Your task to perform on an android device: turn pop-ups on in chrome Image 0: 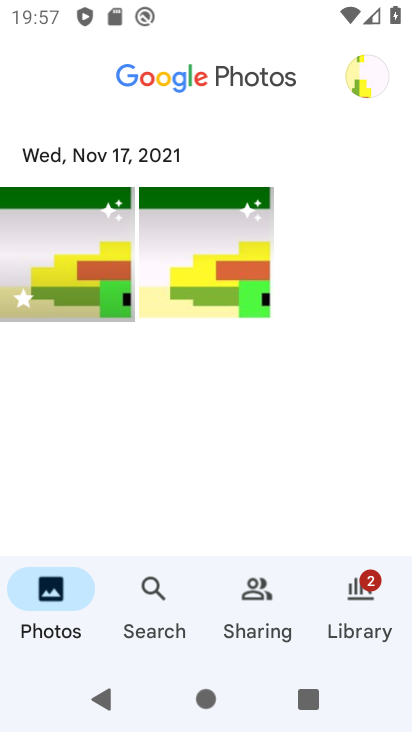
Step 0: press home button
Your task to perform on an android device: turn pop-ups on in chrome Image 1: 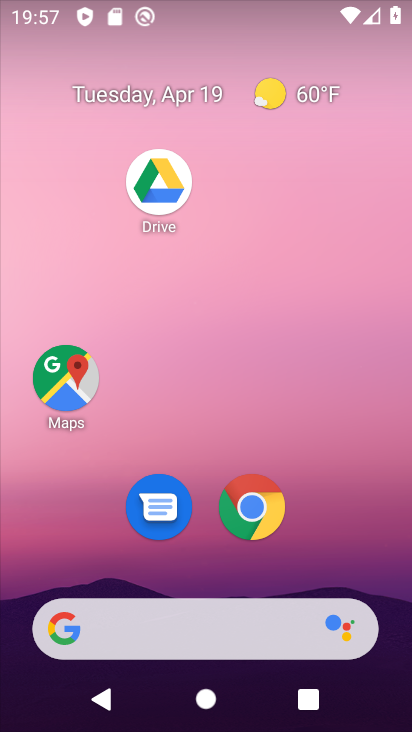
Step 1: click (247, 510)
Your task to perform on an android device: turn pop-ups on in chrome Image 2: 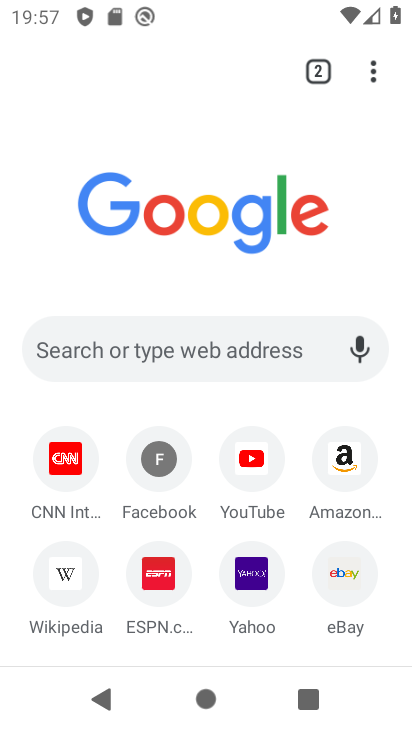
Step 2: drag from (373, 69) to (241, 498)
Your task to perform on an android device: turn pop-ups on in chrome Image 3: 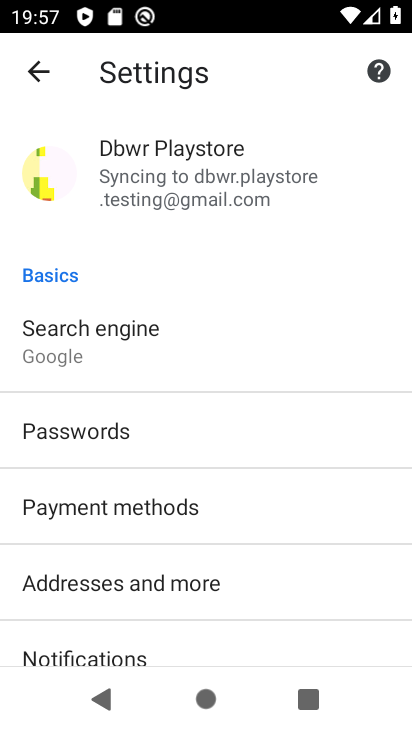
Step 3: drag from (264, 577) to (220, 310)
Your task to perform on an android device: turn pop-ups on in chrome Image 4: 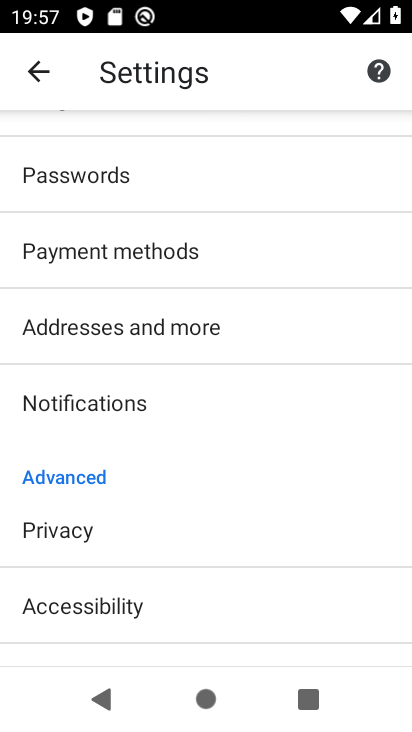
Step 4: drag from (257, 596) to (208, 278)
Your task to perform on an android device: turn pop-ups on in chrome Image 5: 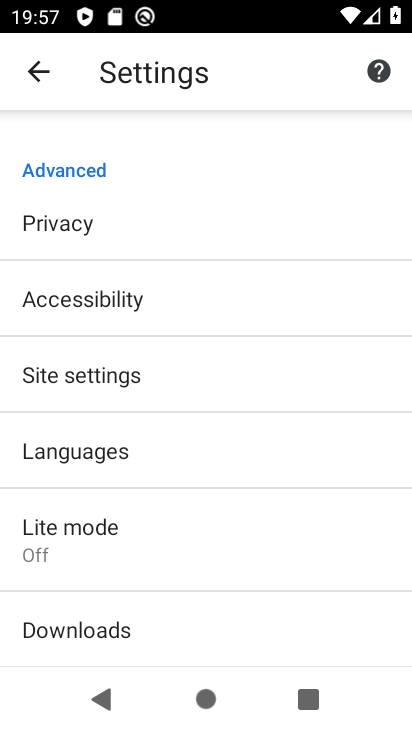
Step 5: click (200, 373)
Your task to perform on an android device: turn pop-ups on in chrome Image 6: 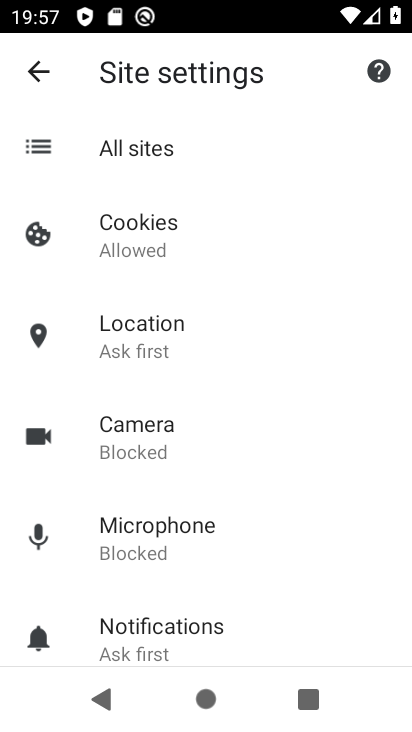
Step 6: drag from (259, 568) to (216, 237)
Your task to perform on an android device: turn pop-ups on in chrome Image 7: 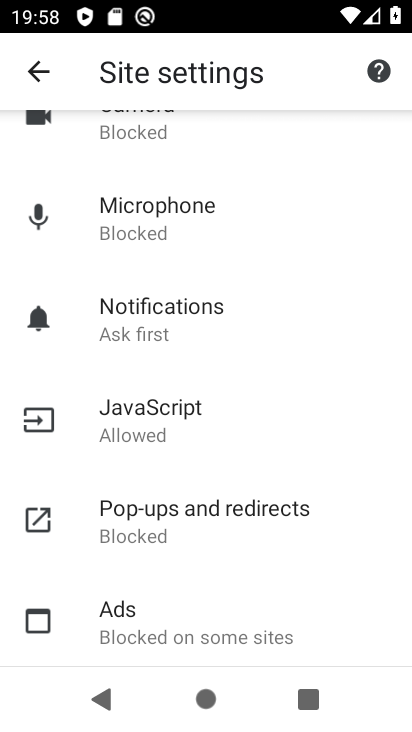
Step 7: click (266, 524)
Your task to perform on an android device: turn pop-ups on in chrome Image 8: 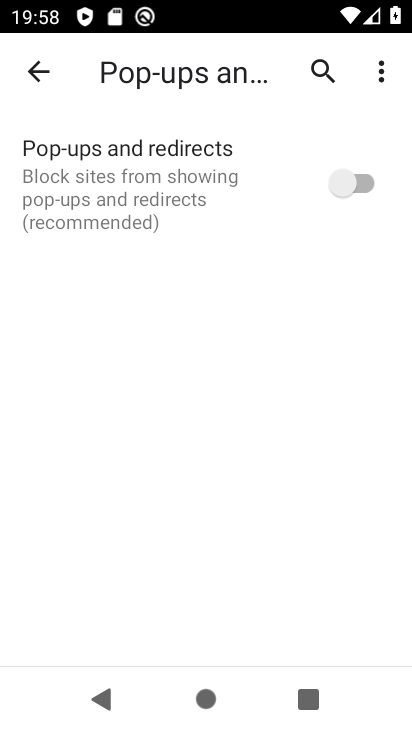
Step 8: click (350, 174)
Your task to perform on an android device: turn pop-ups on in chrome Image 9: 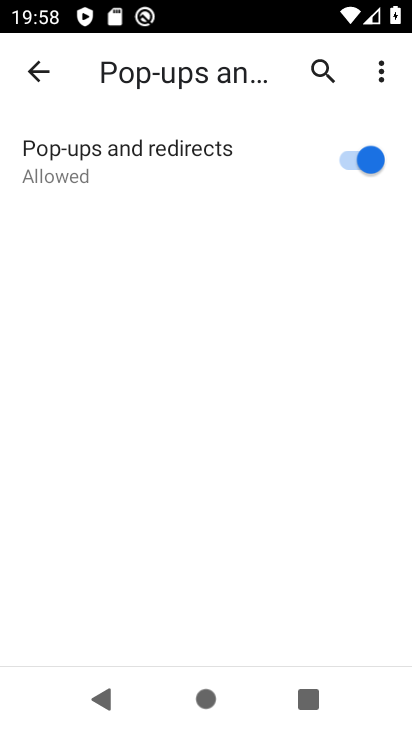
Step 9: task complete